Your task to perform on an android device: change notification settings in the gmail app Image 0: 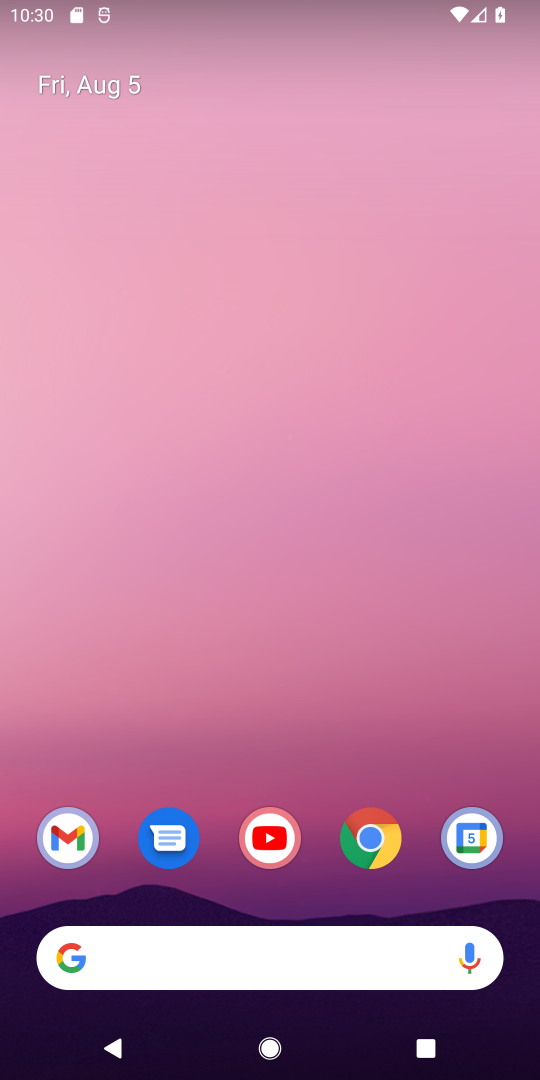
Step 0: click (64, 846)
Your task to perform on an android device: change notification settings in the gmail app Image 1: 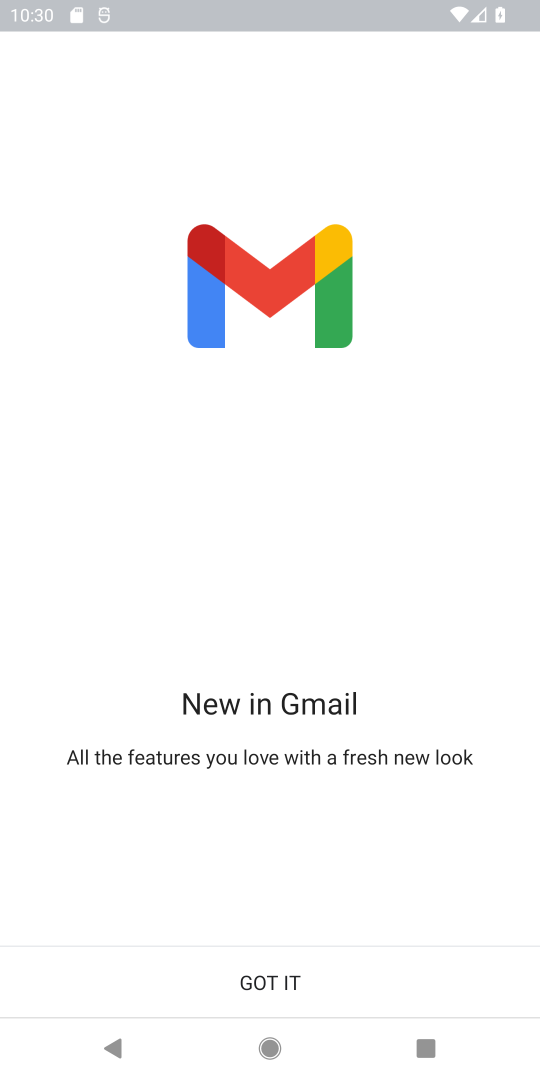
Step 1: click (302, 966)
Your task to perform on an android device: change notification settings in the gmail app Image 2: 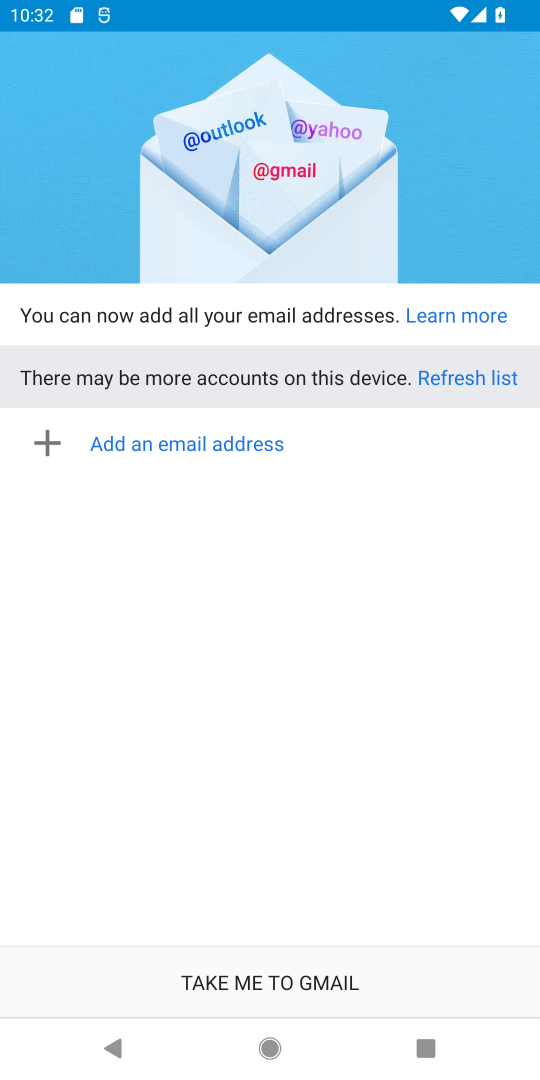
Step 2: task complete